Your task to perform on an android device: turn off data saver in the chrome app Image 0: 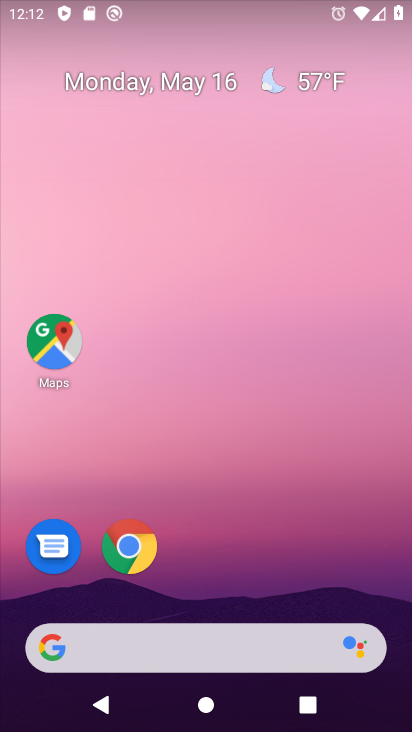
Step 0: click (138, 572)
Your task to perform on an android device: turn off data saver in the chrome app Image 1: 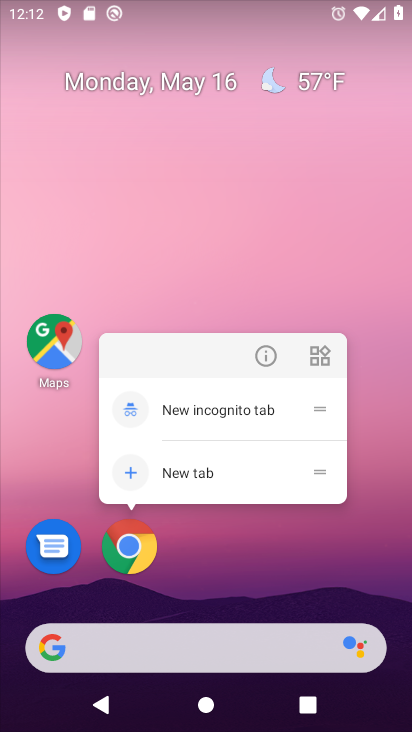
Step 1: click (131, 554)
Your task to perform on an android device: turn off data saver in the chrome app Image 2: 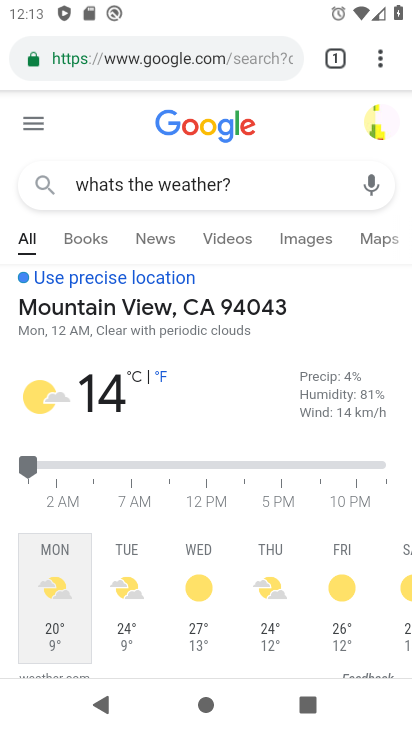
Step 2: drag from (375, 58) to (228, 579)
Your task to perform on an android device: turn off data saver in the chrome app Image 3: 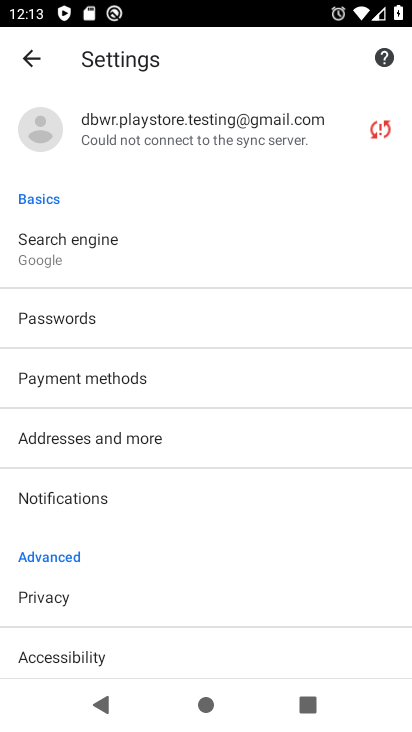
Step 3: drag from (175, 635) to (192, 215)
Your task to perform on an android device: turn off data saver in the chrome app Image 4: 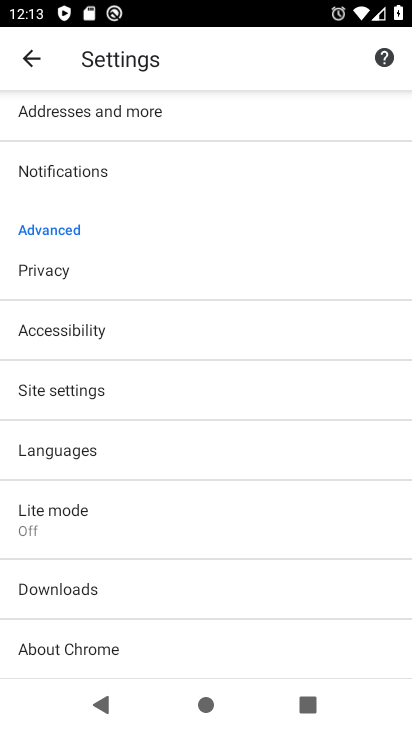
Step 4: click (154, 528)
Your task to perform on an android device: turn off data saver in the chrome app Image 5: 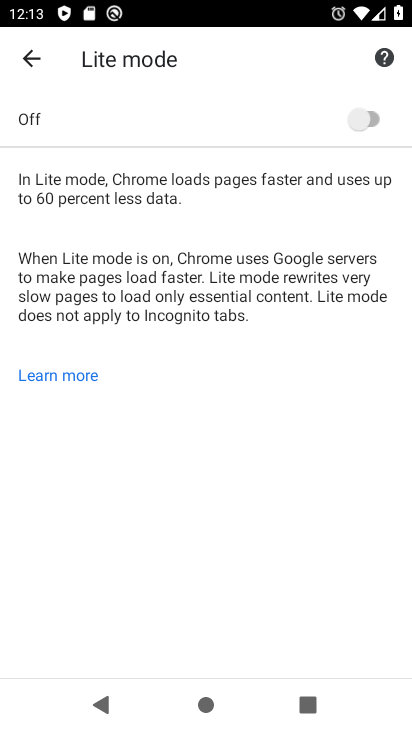
Step 5: task complete